Your task to perform on an android device: Open Wikipedia Image 0: 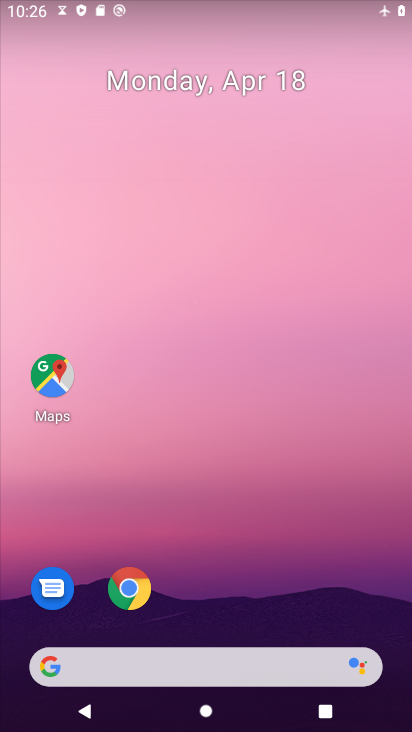
Step 0: drag from (319, 518) to (196, 19)
Your task to perform on an android device: Open Wikipedia Image 1: 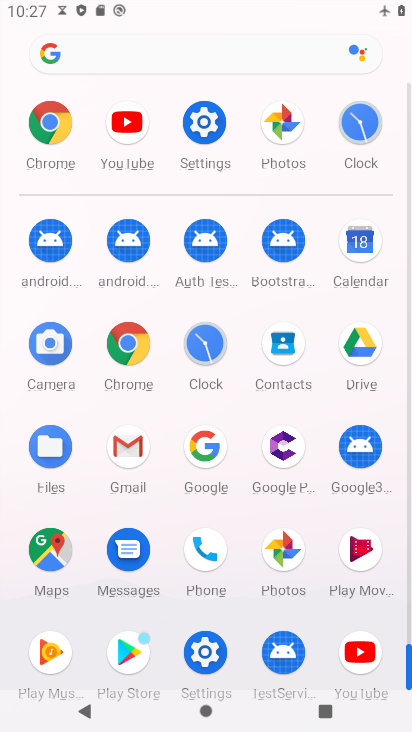
Step 1: click (45, 125)
Your task to perform on an android device: Open Wikipedia Image 2: 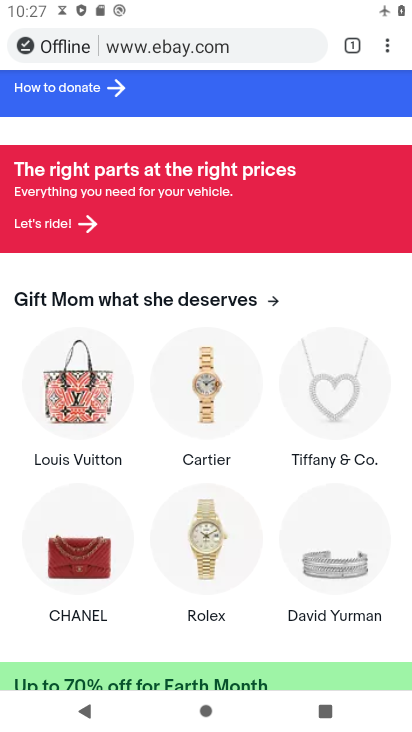
Step 2: click (204, 30)
Your task to perform on an android device: Open Wikipedia Image 3: 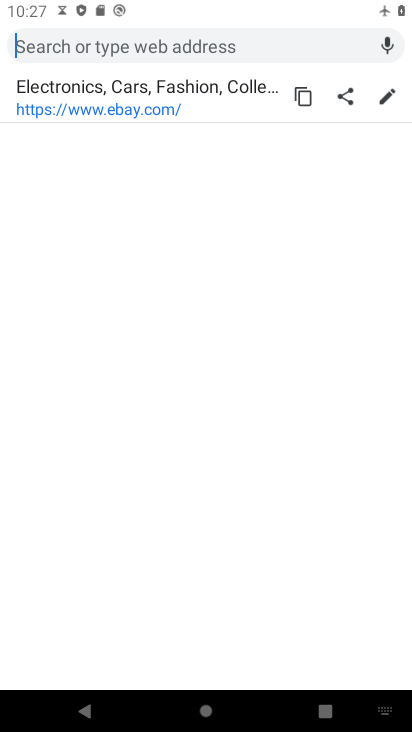
Step 3: type "Wikipedia"
Your task to perform on an android device: Open Wikipedia Image 4: 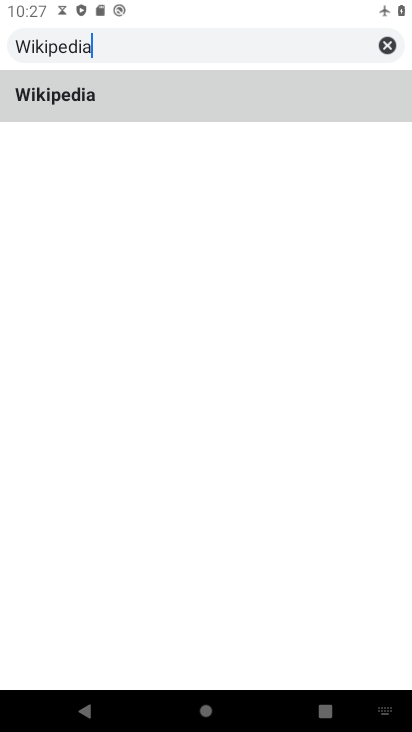
Step 4: type ""
Your task to perform on an android device: Open Wikipedia Image 5: 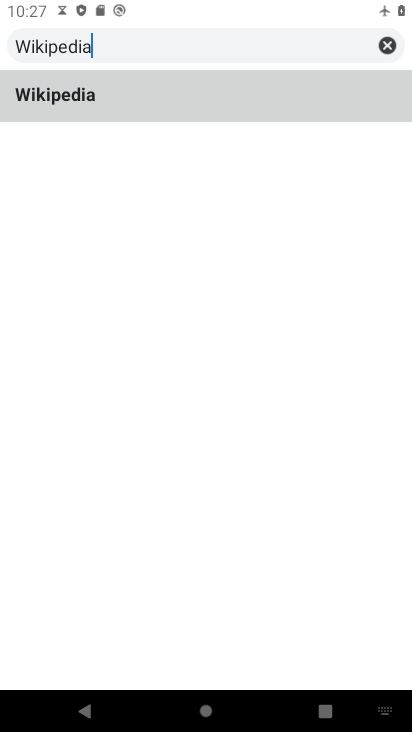
Step 5: click (102, 91)
Your task to perform on an android device: Open Wikipedia Image 6: 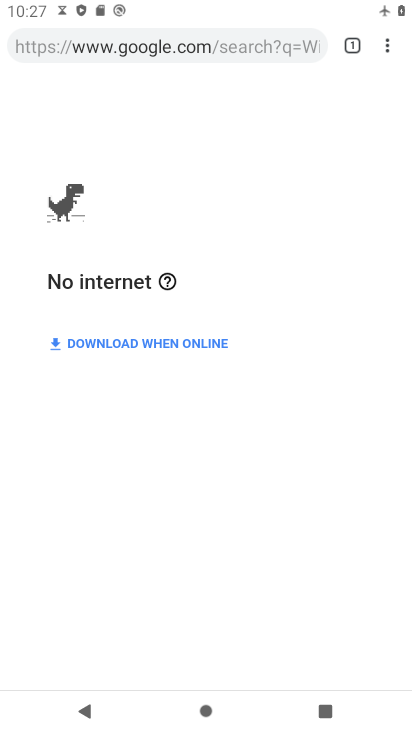
Step 6: task complete